Your task to perform on an android device: Go to CNN.com Image 0: 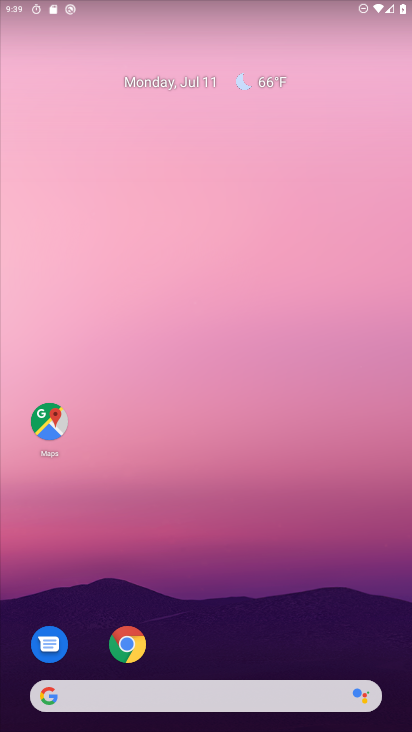
Step 0: drag from (276, 590) to (307, 55)
Your task to perform on an android device: Go to CNN.com Image 1: 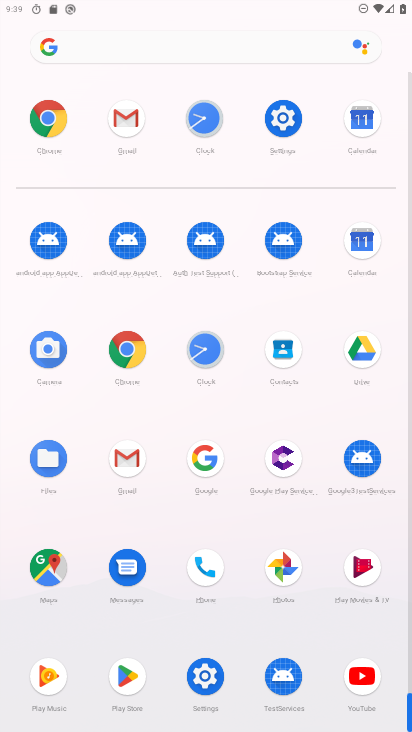
Step 1: click (128, 343)
Your task to perform on an android device: Go to CNN.com Image 2: 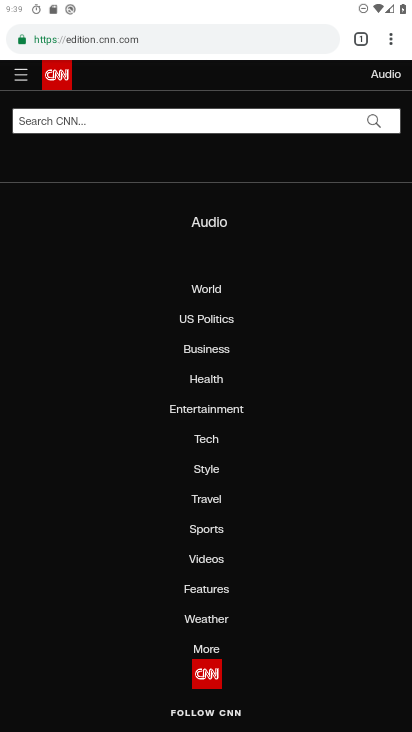
Step 2: task complete